Your task to perform on an android device: Open Maps and search for coffee Image 0: 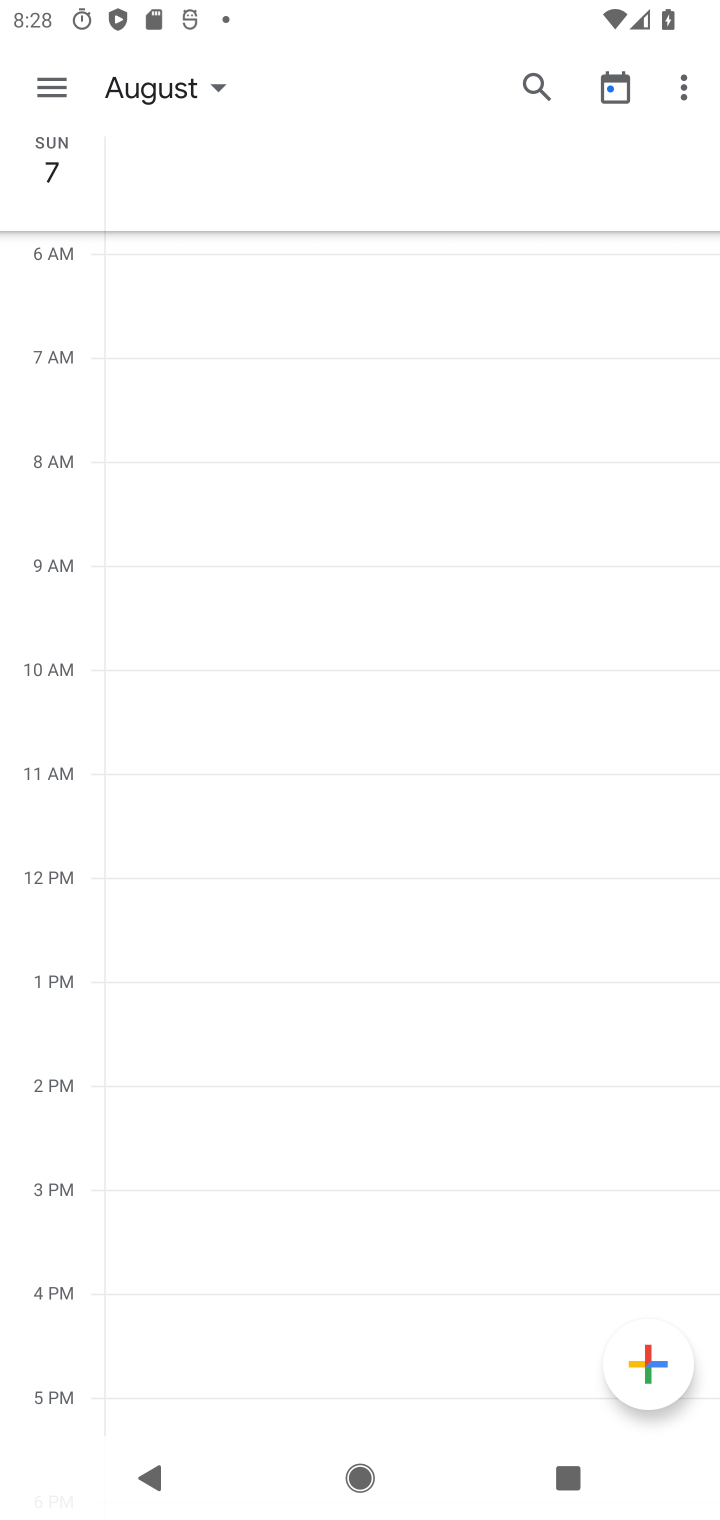
Step 0: press home button
Your task to perform on an android device: Open Maps and search for coffee Image 1: 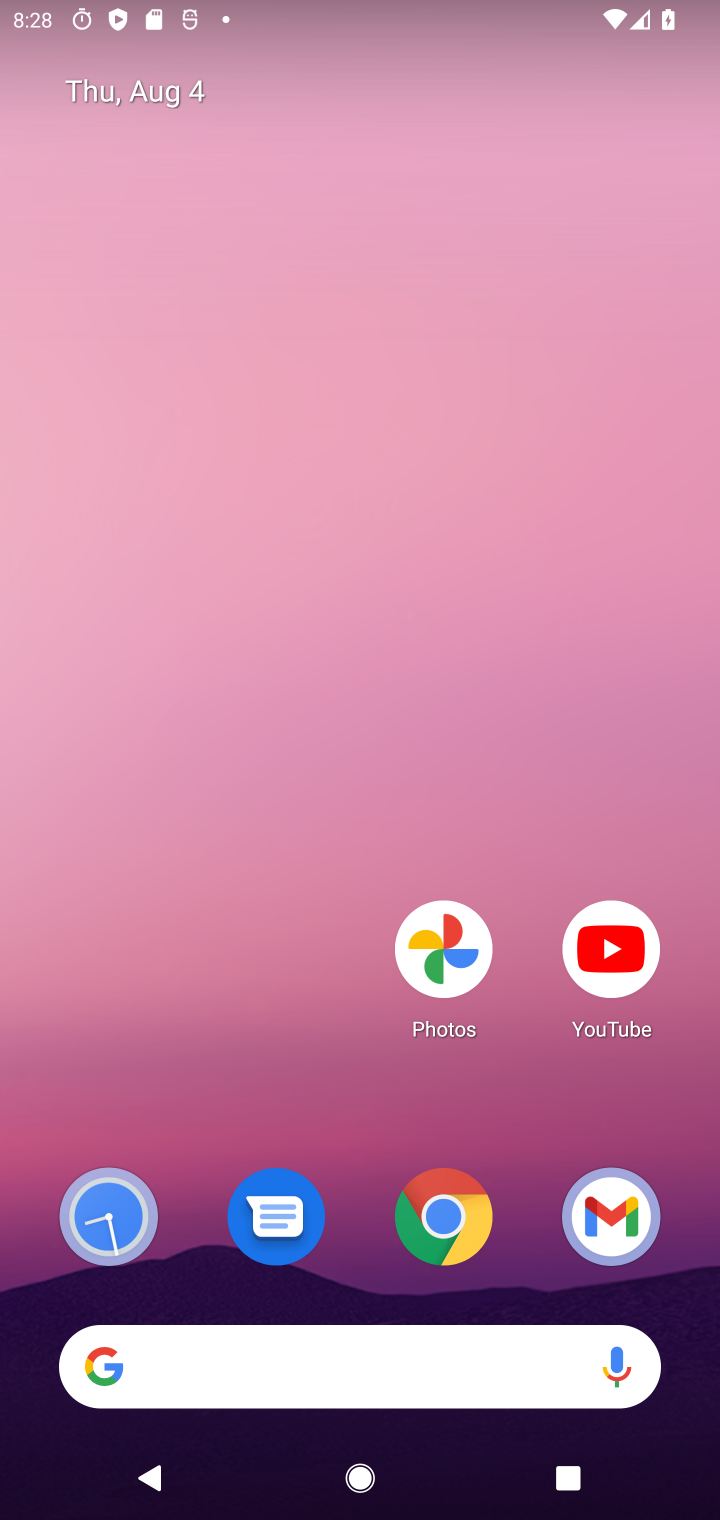
Step 1: drag from (346, 1176) to (341, 85)
Your task to perform on an android device: Open Maps and search for coffee Image 2: 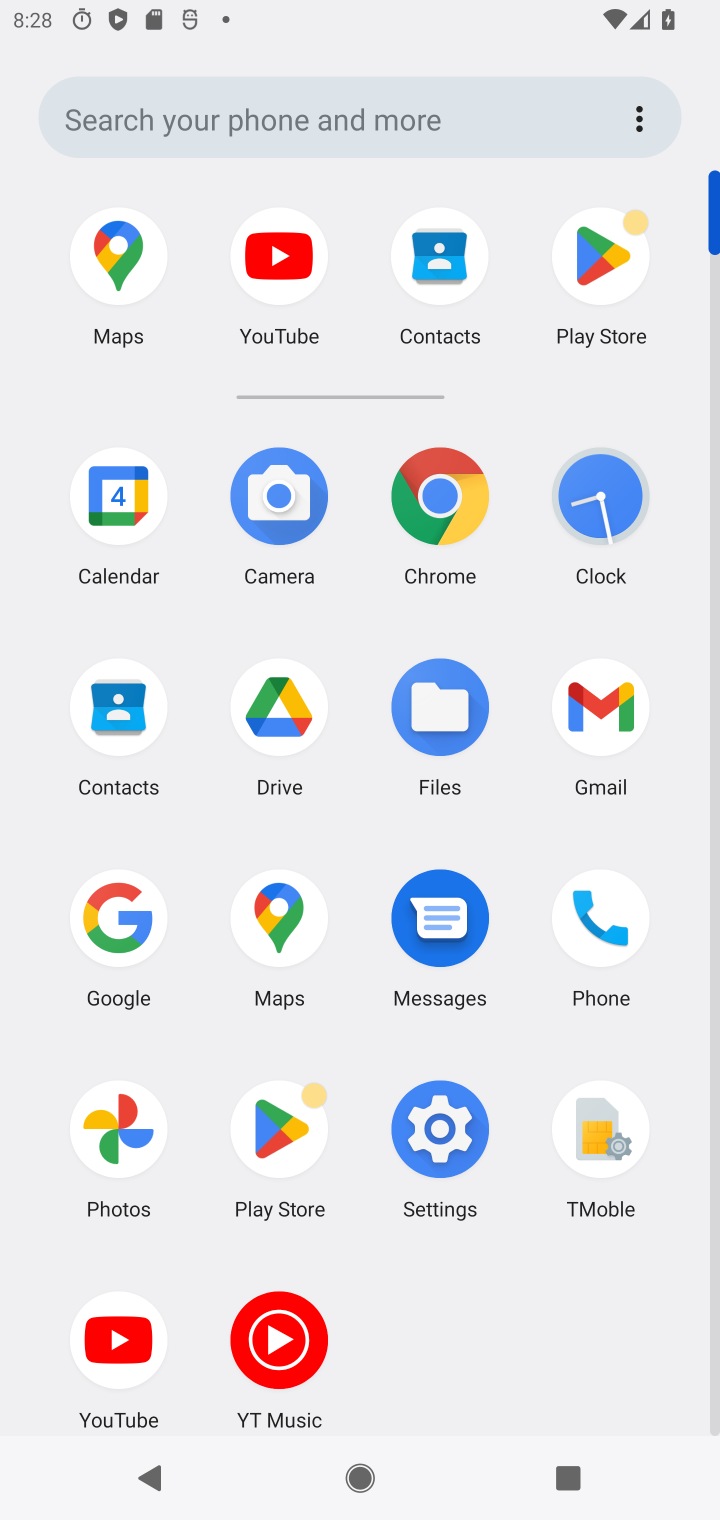
Step 2: click (274, 926)
Your task to perform on an android device: Open Maps and search for coffee Image 3: 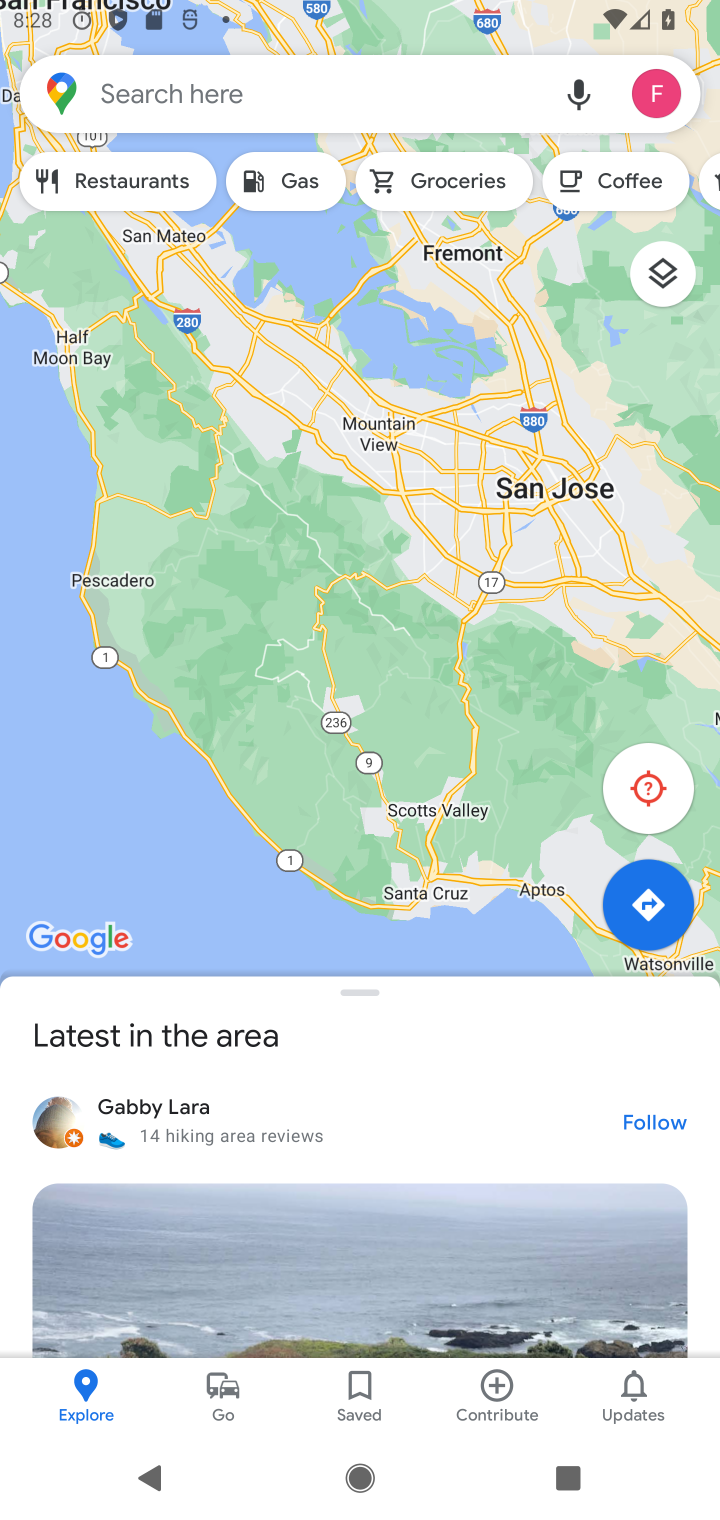
Step 3: click (432, 92)
Your task to perform on an android device: Open Maps and search for coffee Image 4: 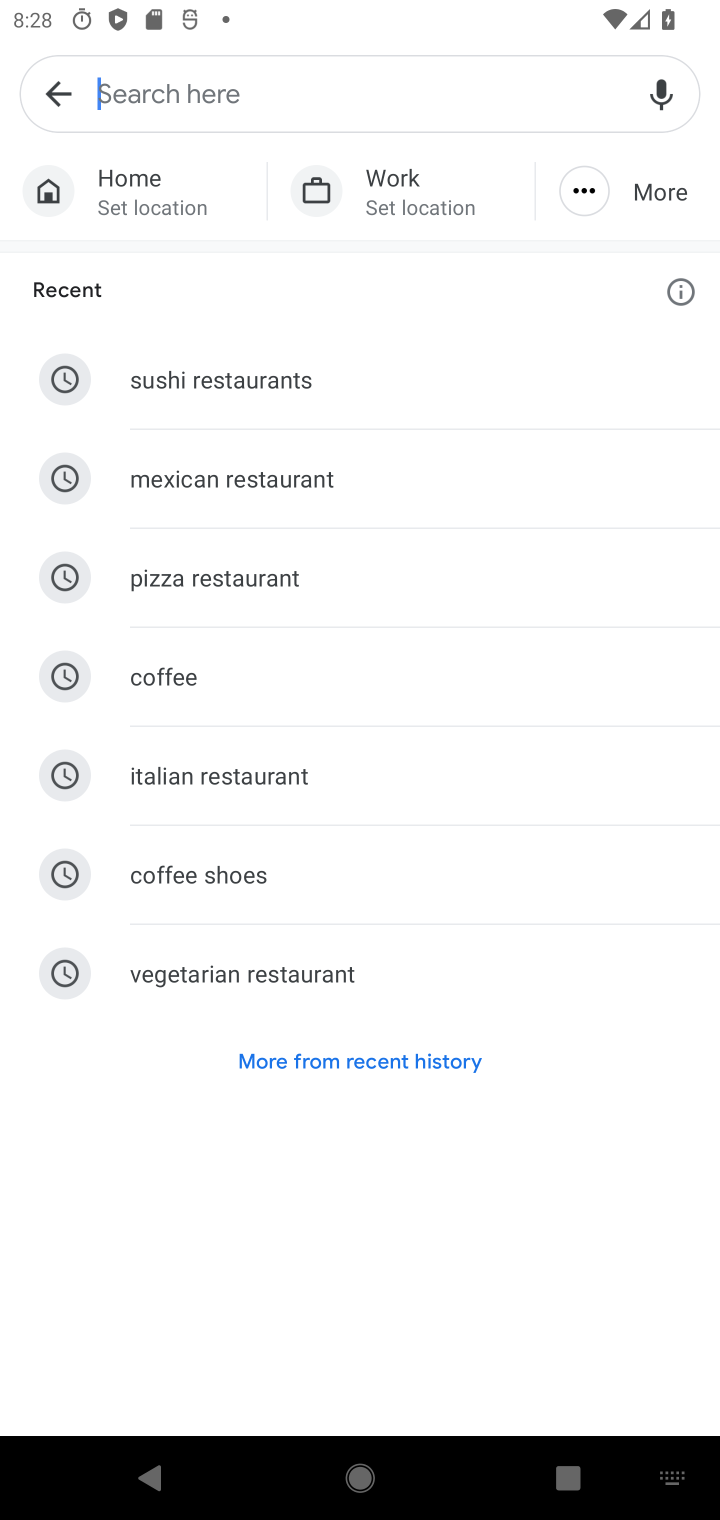
Step 4: type "Coffee"
Your task to perform on an android device: Open Maps and search for coffee Image 5: 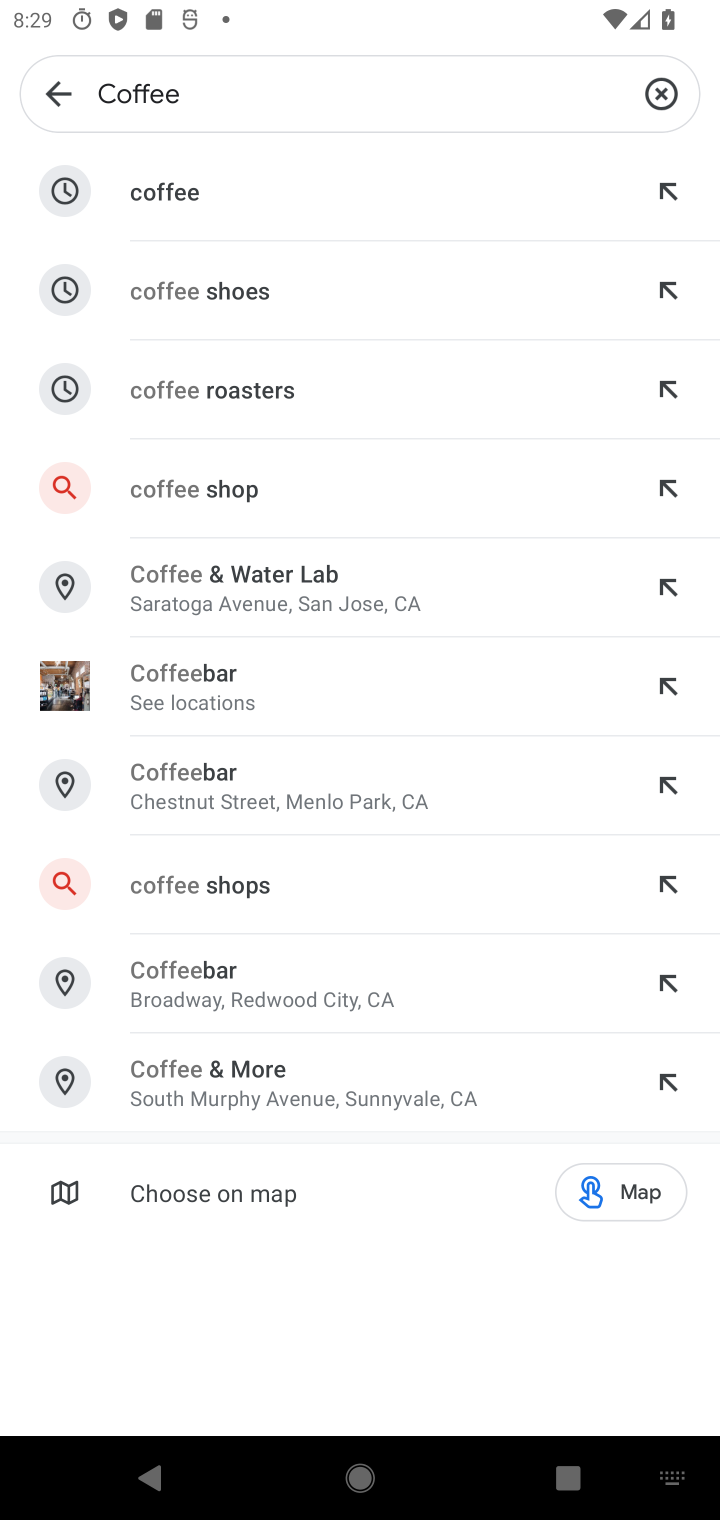
Step 5: click (160, 194)
Your task to perform on an android device: Open Maps and search for coffee Image 6: 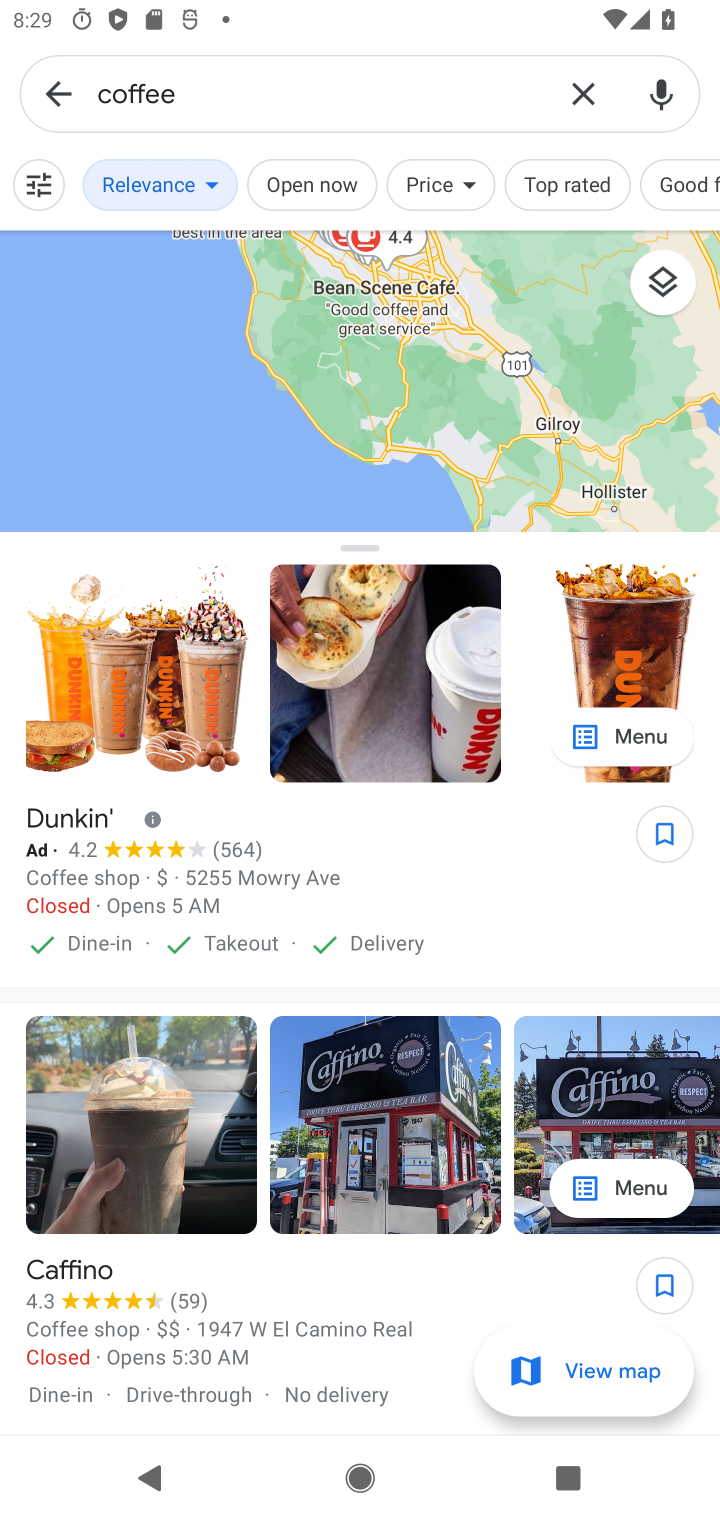
Step 6: task complete